Your task to perform on an android device: Open Chrome and go to settings Image 0: 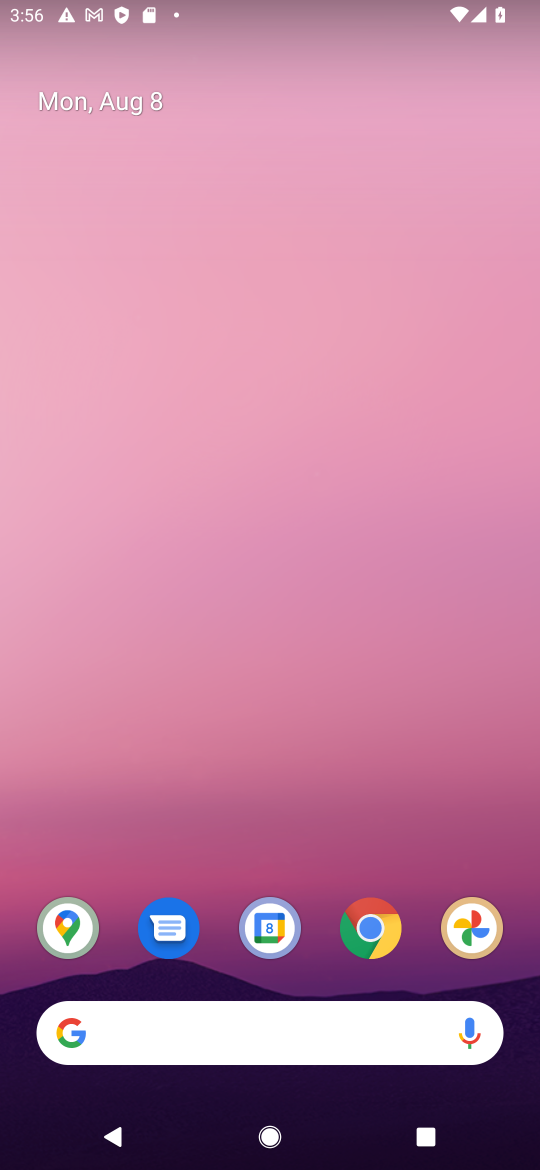
Step 0: drag from (448, 846) to (404, 230)
Your task to perform on an android device: Open Chrome and go to settings Image 1: 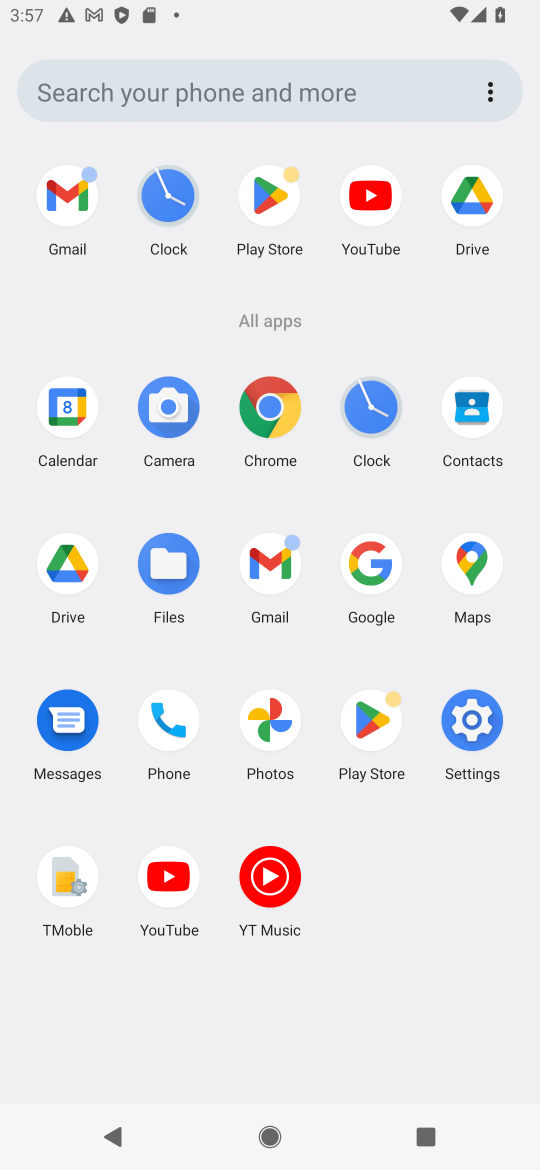
Step 1: click (290, 420)
Your task to perform on an android device: Open Chrome and go to settings Image 2: 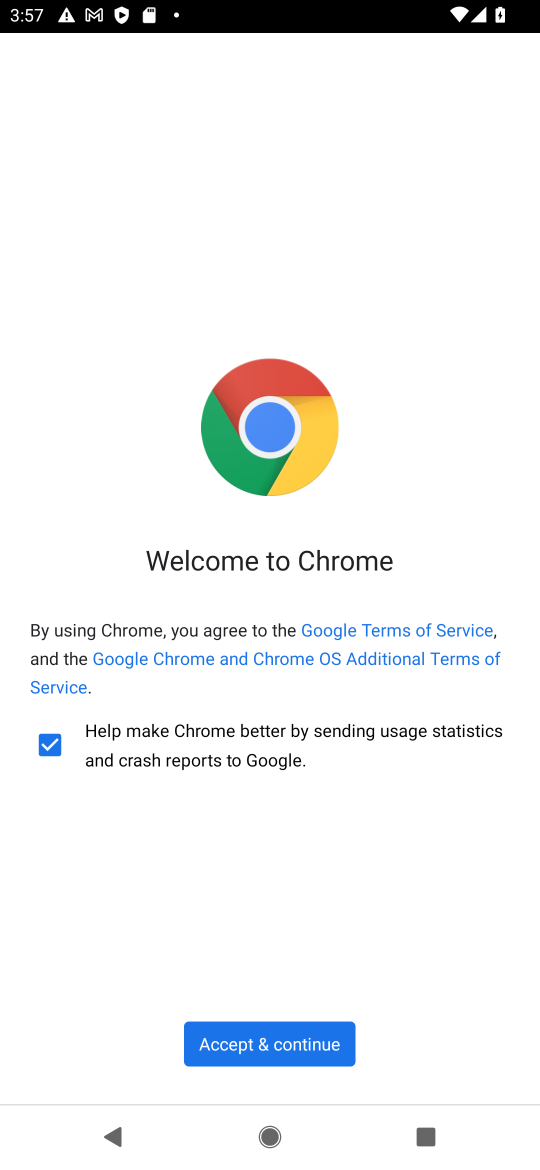
Step 2: click (274, 1049)
Your task to perform on an android device: Open Chrome and go to settings Image 3: 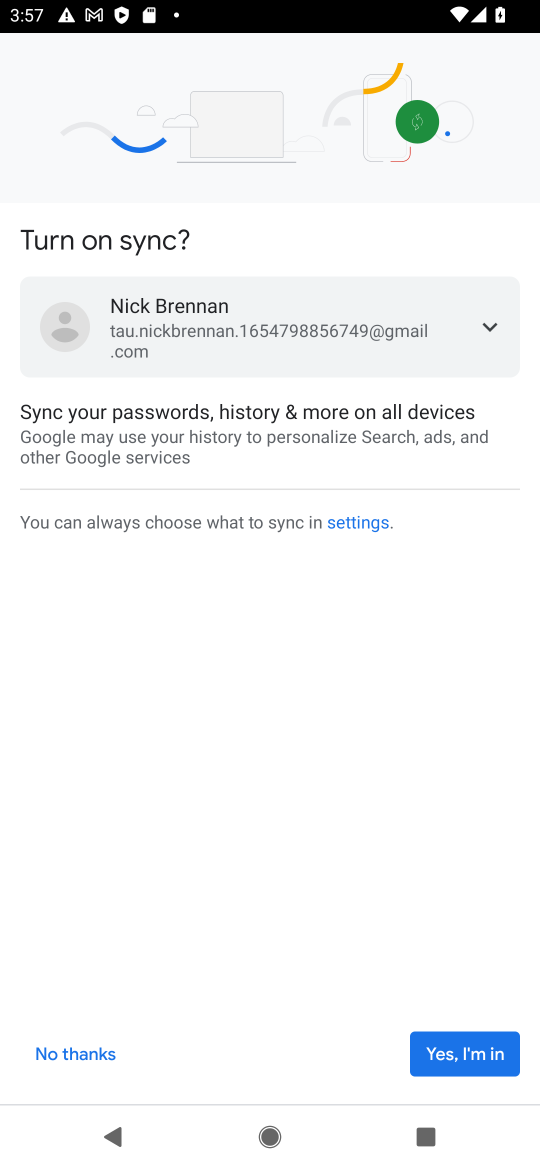
Step 3: click (274, 1049)
Your task to perform on an android device: Open Chrome and go to settings Image 4: 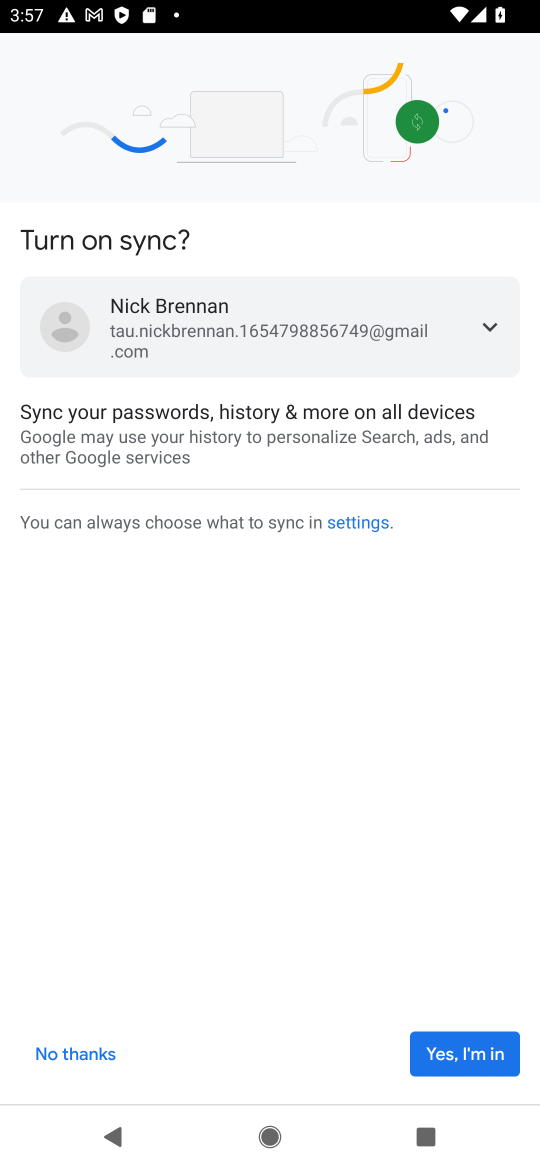
Step 4: click (444, 1060)
Your task to perform on an android device: Open Chrome and go to settings Image 5: 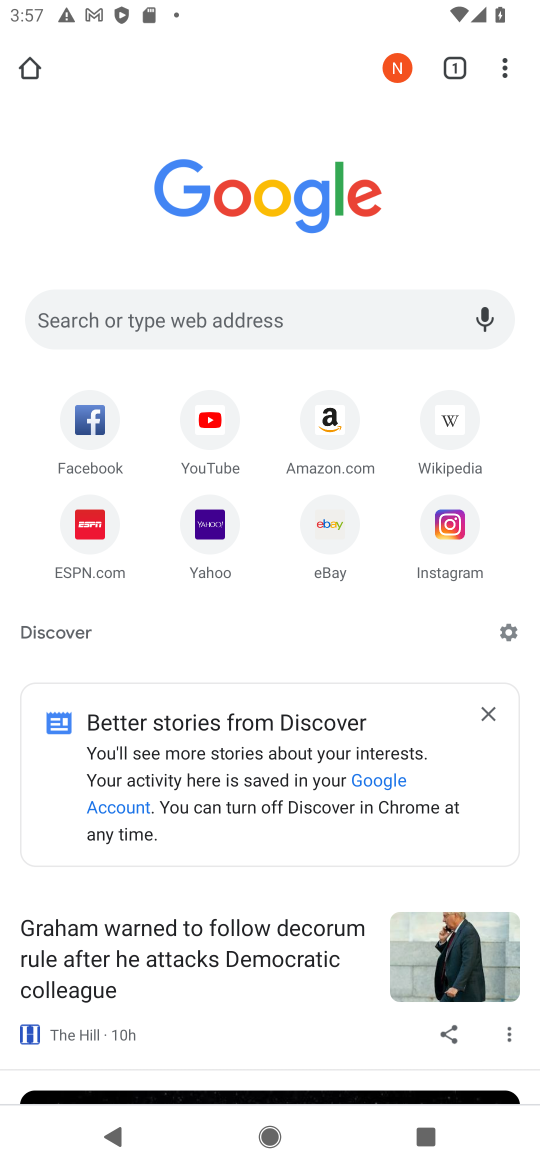
Step 5: click (508, 57)
Your task to perform on an android device: Open Chrome and go to settings Image 6: 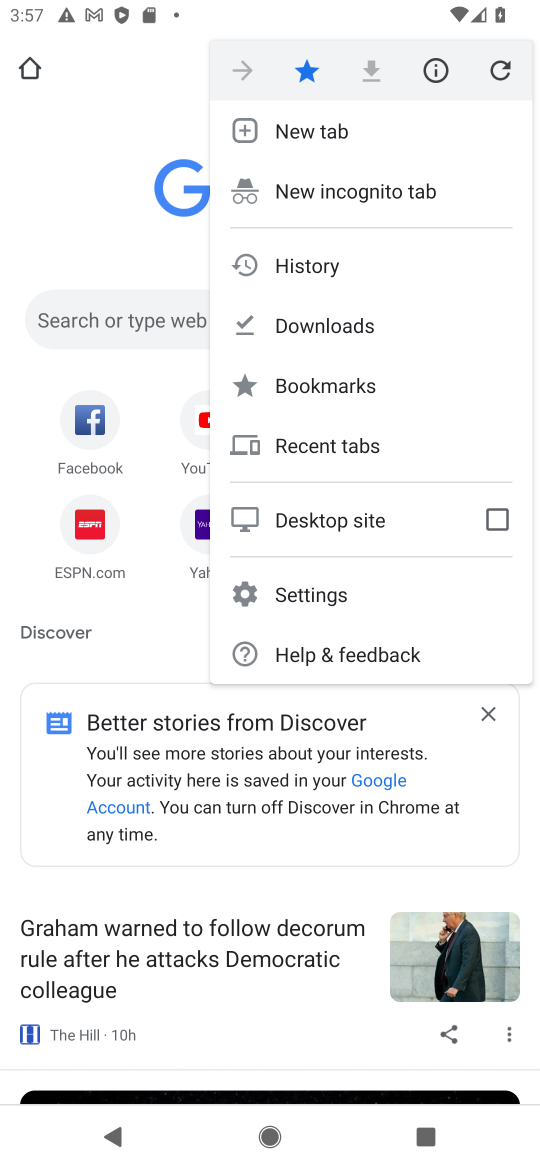
Step 6: click (333, 597)
Your task to perform on an android device: Open Chrome and go to settings Image 7: 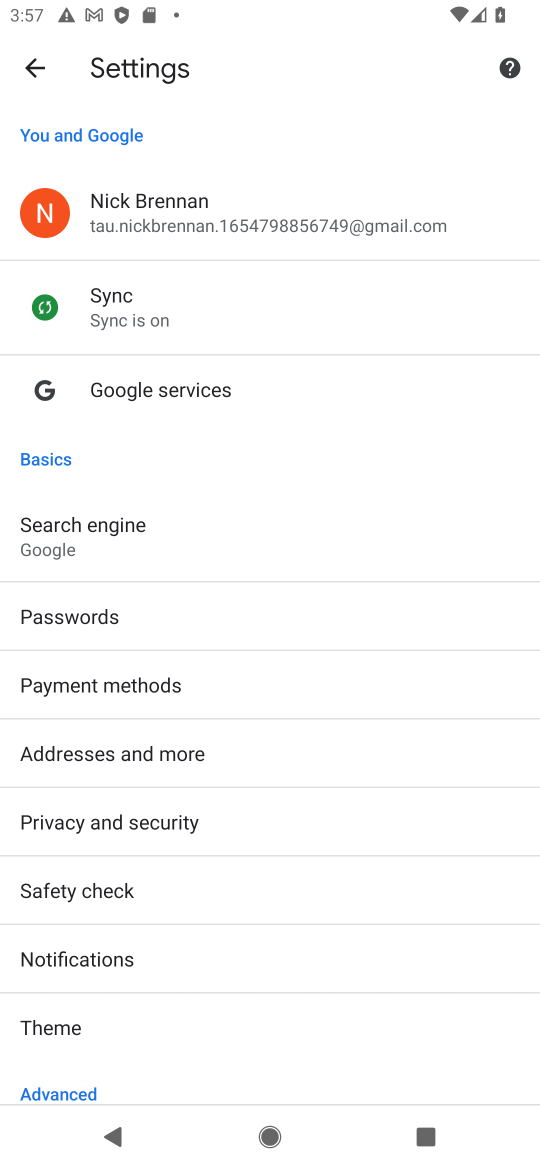
Step 7: task complete